Your task to perform on an android device: Go to location settings Image 0: 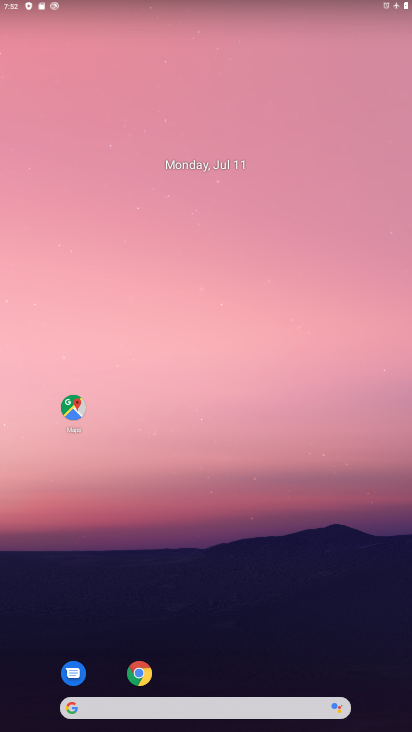
Step 0: drag from (302, 627) to (271, 141)
Your task to perform on an android device: Go to location settings Image 1: 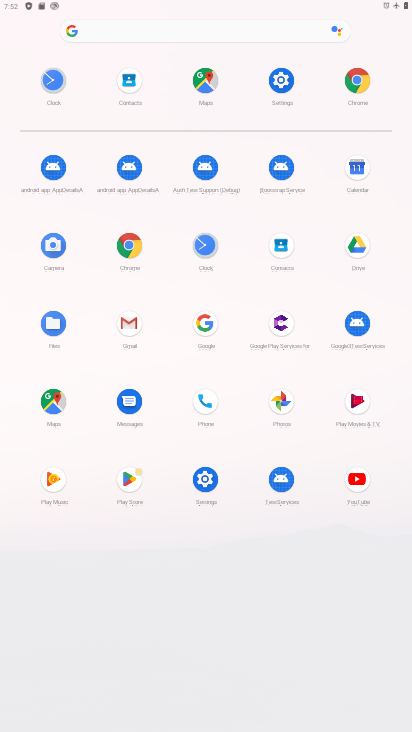
Step 1: click (276, 94)
Your task to perform on an android device: Go to location settings Image 2: 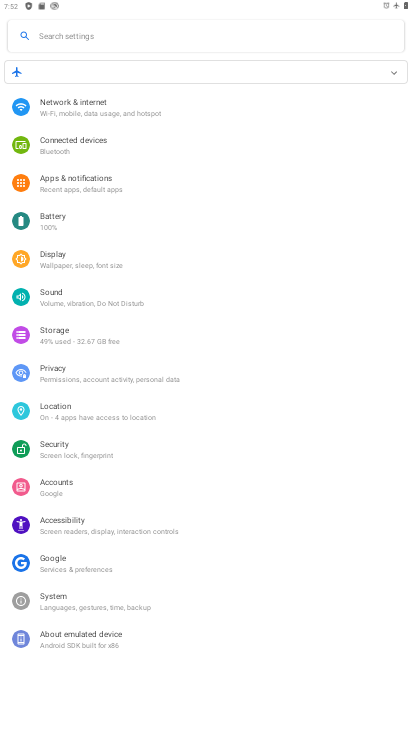
Step 2: click (92, 416)
Your task to perform on an android device: Go to location settings Image 3: 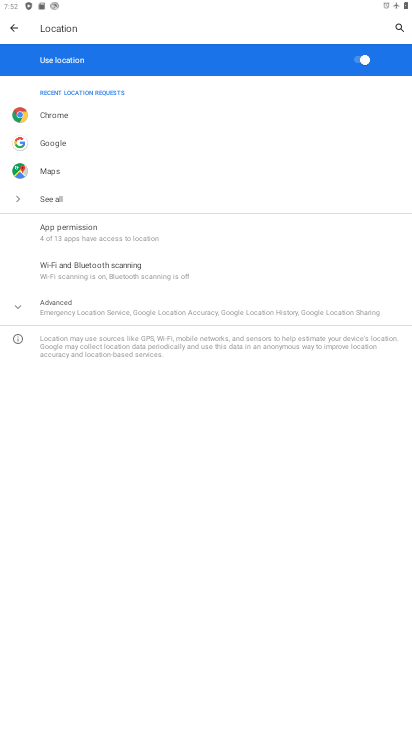
Step 3: task complete